Your task to perform on an android device: Check the news Image 0: 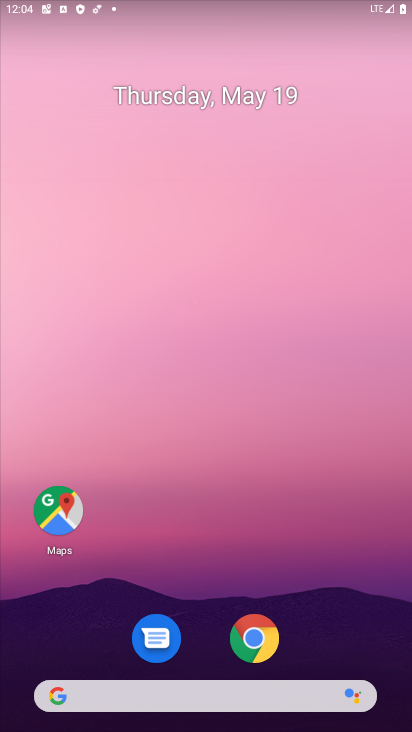
Step 0: drag from (391, 640) to (271, 19)
Your task to perform on an android device: Check the news Image 1: 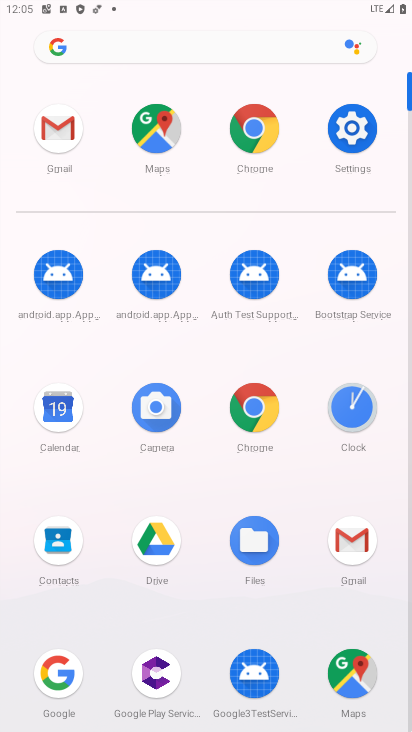
Step 1: click (47, 687)
Your task to perform on an android device: Check the news Image 2: 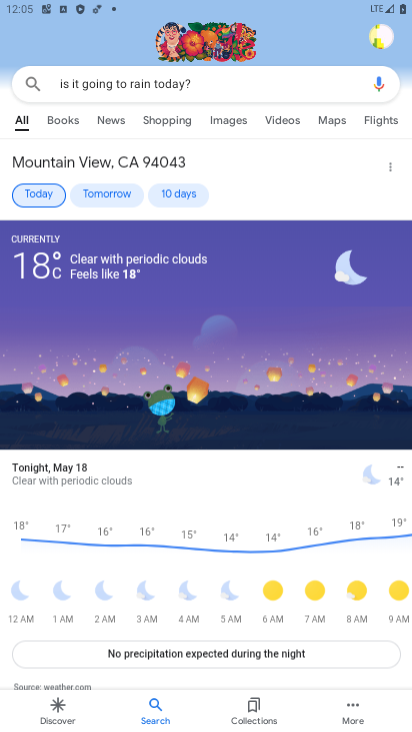
Step 2: press back button
Your task to perform on an android device: Check the news Image 3: 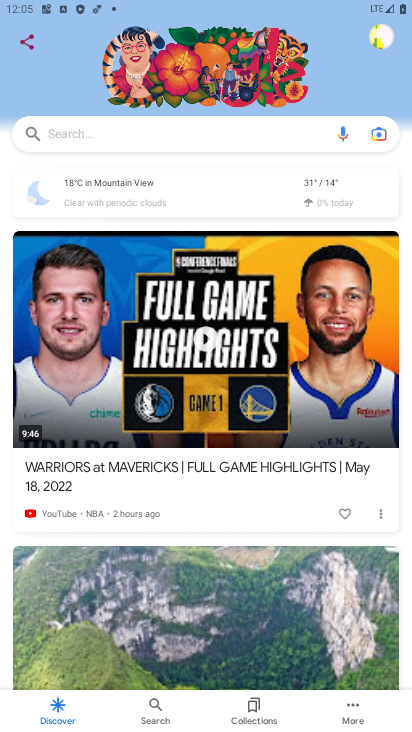
Step 3: click (178, 140)
Your task to perform on an android device: Check the news Image 4: 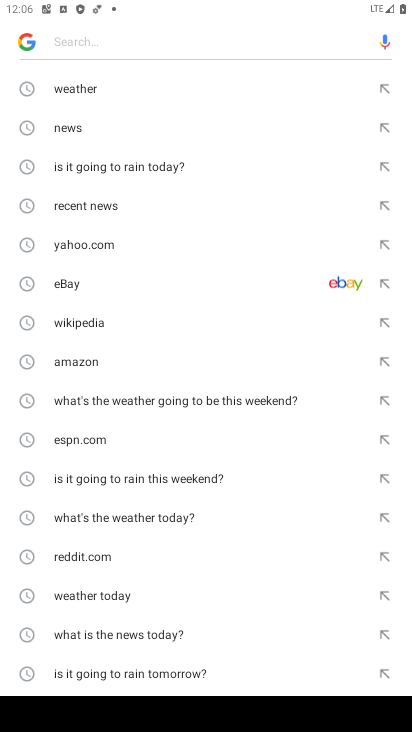
Step 4: click (87, 121)
Your task to perform on an android device: Check the news Image 5: 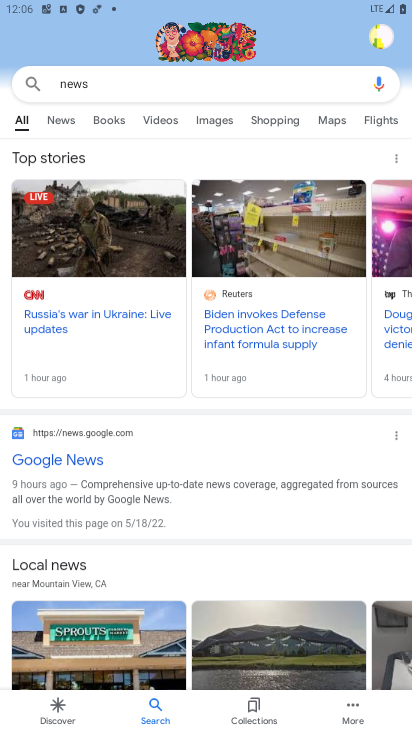
Step 5: task complete